Your task to perform on an android device: see creations saved in the google photos Image 0: 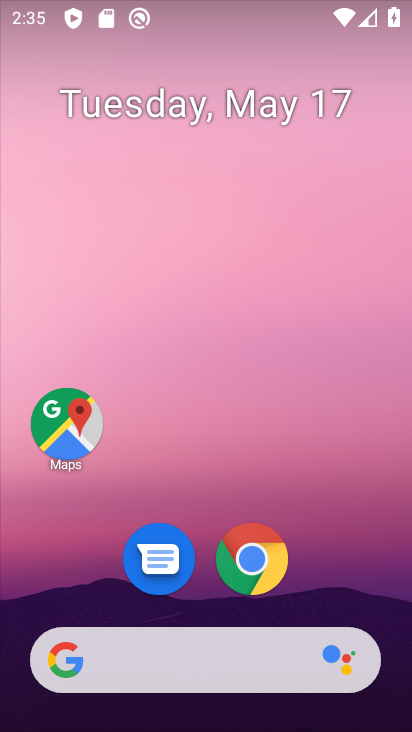
Step 0: drag from (362, 595) to (294, 1)
Your task to perform on an android device: see creations saved in the google photos Image 1: 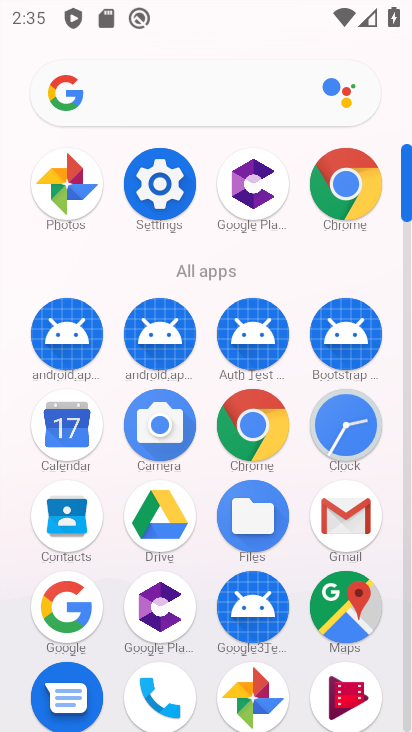
Step 1: click (245, 700)
Your task to perform on an android device: see creations saved in the google photos Image 2: 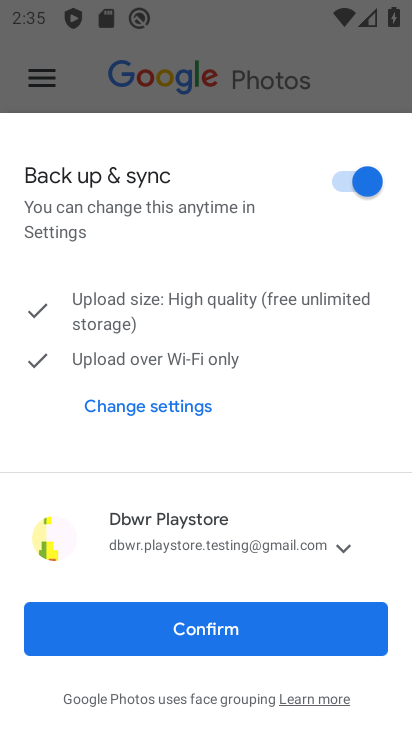
Step 2: click (229, 632)
Your task to perform on an android device: see creations saved in the google photos Image 3: 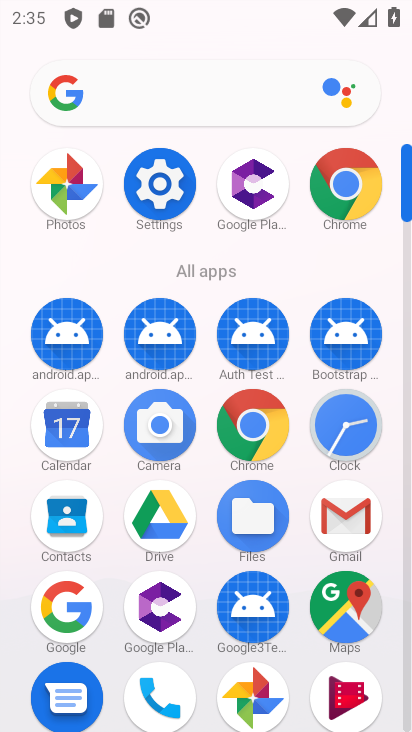
Step 3: click (251, 684)
Your task to perform on an android device: see creations saved in the google photos Image 4: 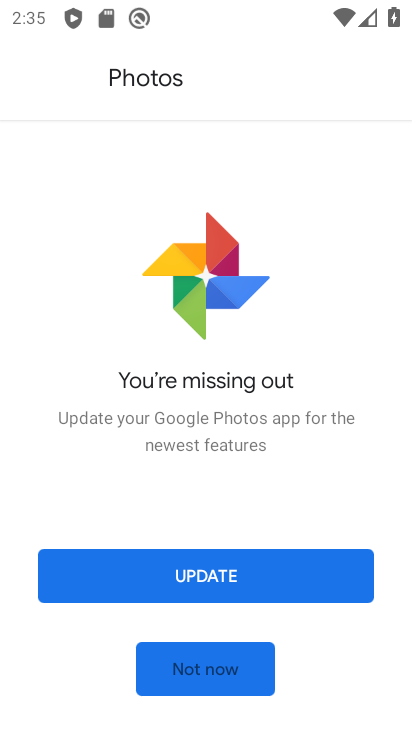
Step 4: click (223, 579)
Your task to perform on an android device: see creations saved in the google photos Image 5: 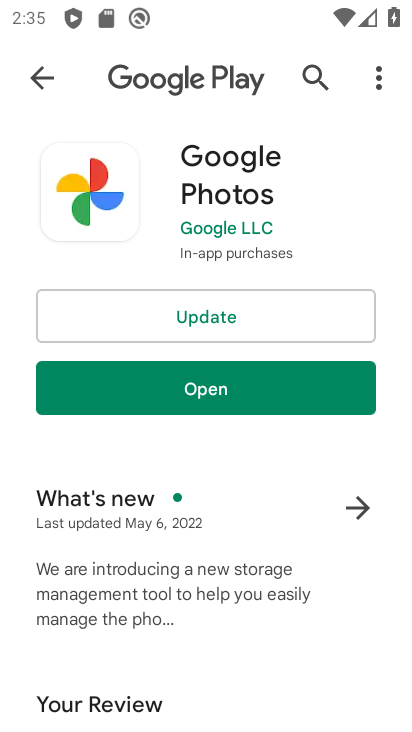
Step 5: click (219, 318)
Your task to perform on an android device: see creations saved in the google photos Image 6: 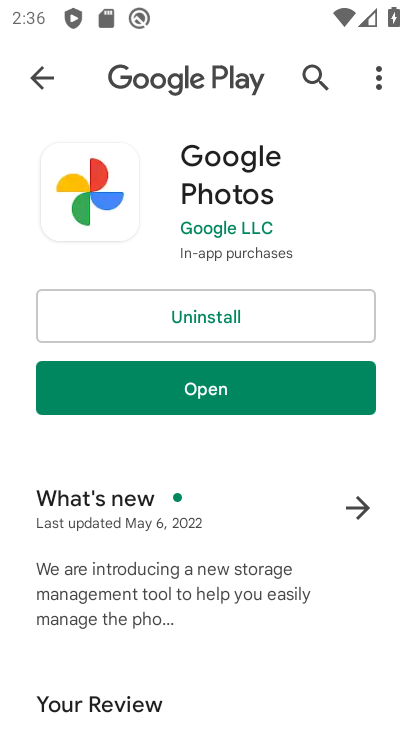
Step 6: click (225, 387)
Your task to perform on an android device: see creations saved in the google photos Image 7: 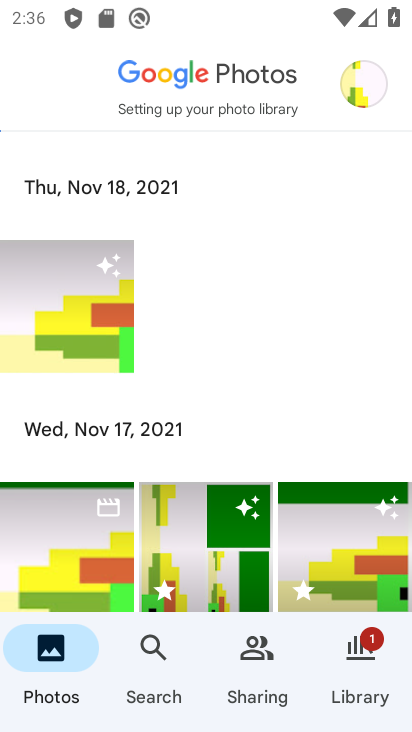
Step 7: click (157, 659)
Your task to perform on an android device: see creations saved in the google photos Image 8: 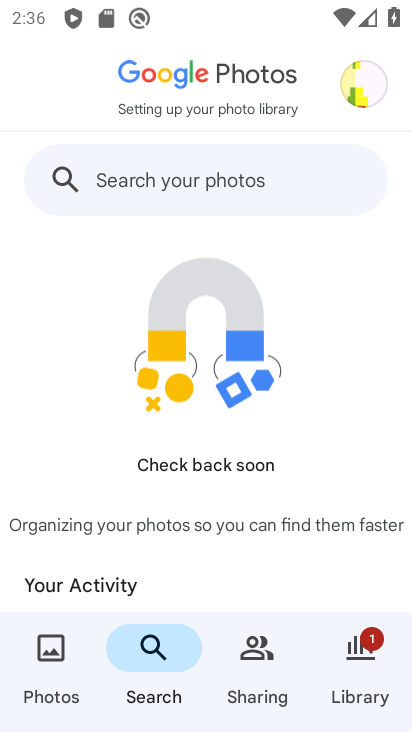
Step 8: click (219, 166)
Your task to perform on an android device: see creations saved in the google photos Image 9: 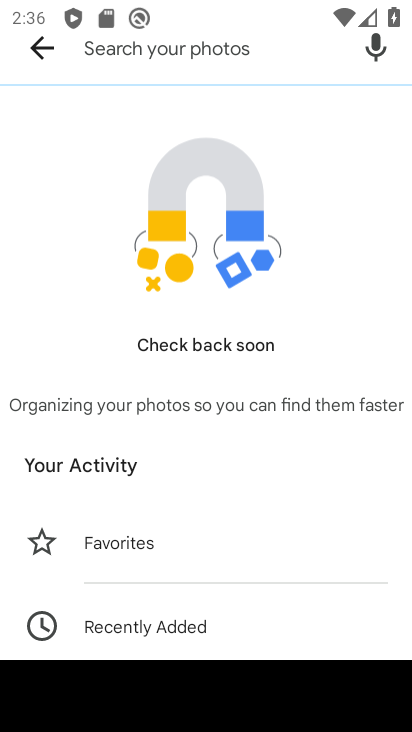
Step 9: drag from (164, 601) to (184, 49)
Your task to perform on an android device: see creations saved in the google photos Image 10: 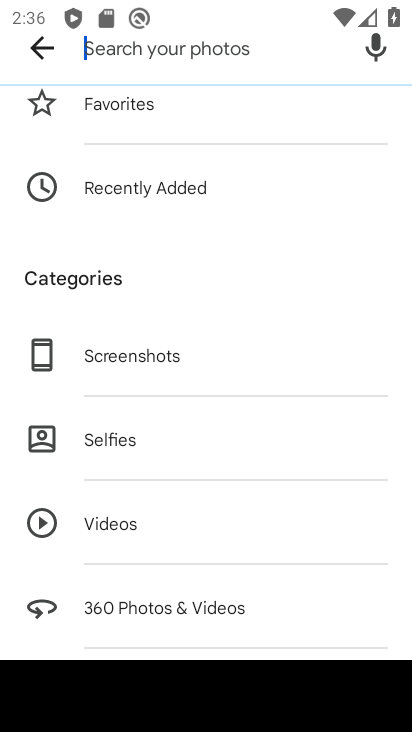
Step 10: drag from (217, 614) to (241, 201)
Your task to perform on an android device: see creations saved in the google photos Image 11: 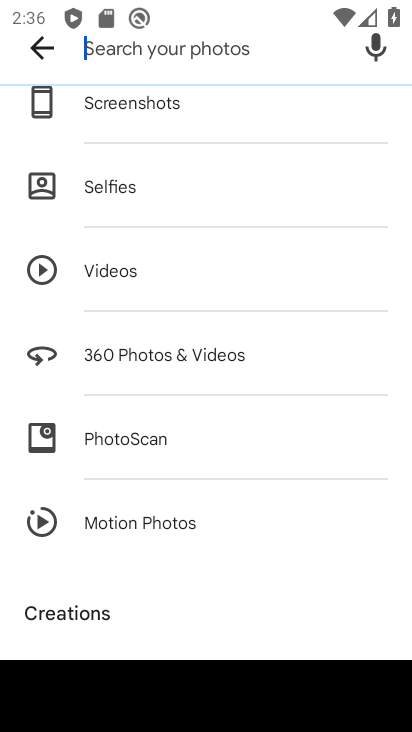
Step 11: drag from (256, 630) to (247, 305)
Your task to perform on an android device: see creations saved in the google photos Image 12: 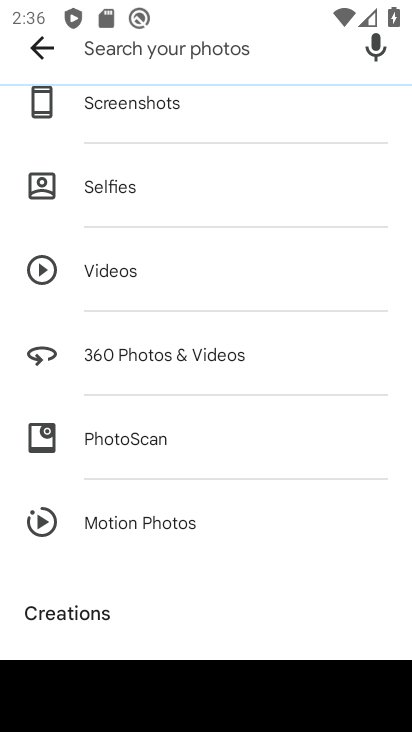
Step 12: click (100, 611)
Your task to perform on an android device: see creations saved in the google photos Image 13: 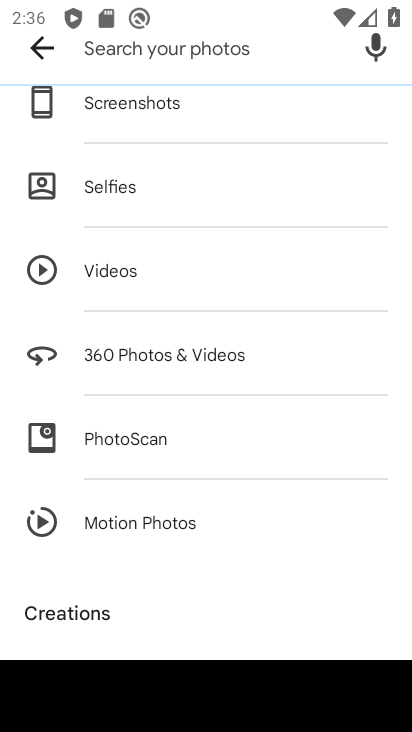
Step 13: click (131, 635)
Your task to perform on an android device: see creations saved in the google photos Image 14: 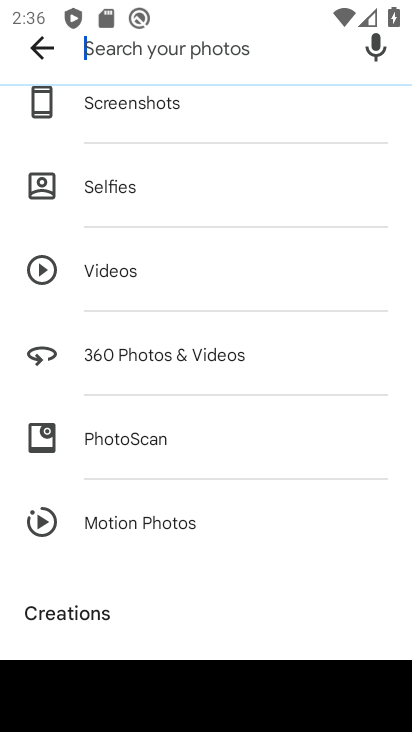
Step 14: task complete